Your task to perform on an android device: Go to Yahoo.com Image 0: 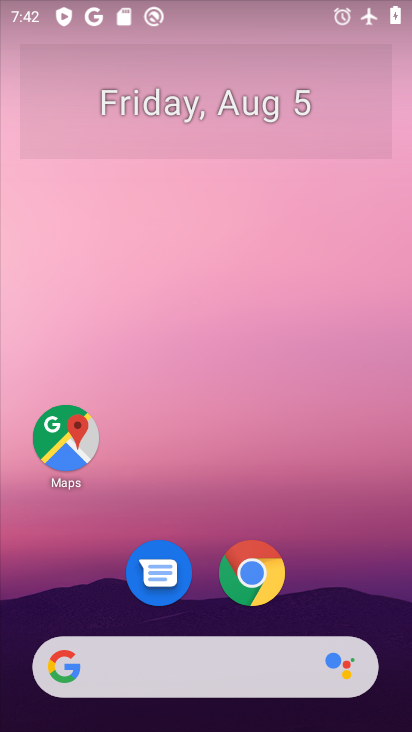
Step 0: click (217, 667)
Your task to perform on an android device: Go to Yahoo.com Image 1: 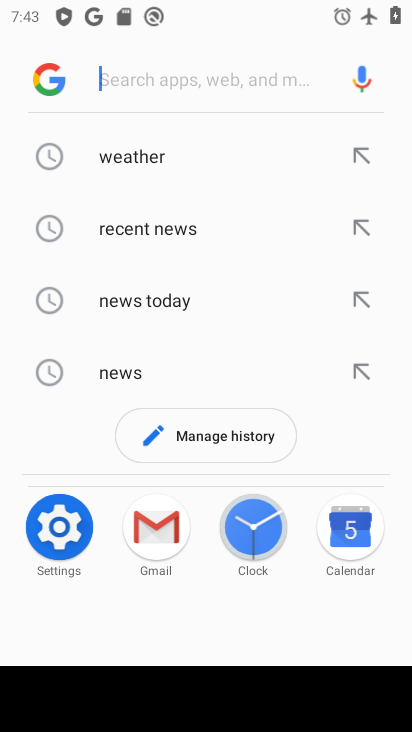
Step 1: type "yahoo.com"
Your task to perform on an android device: Go to Yahoo.com Image 2: 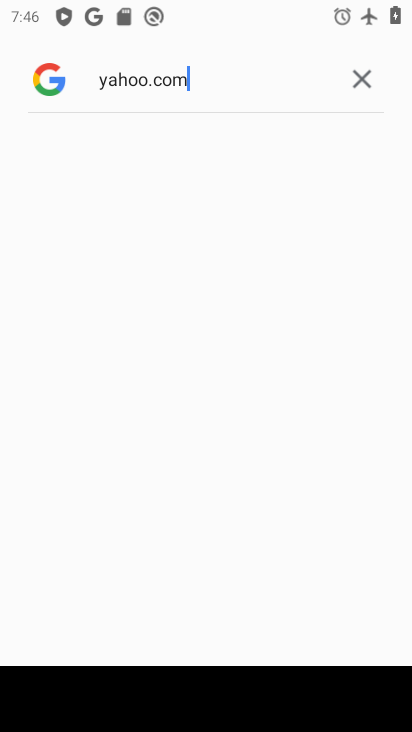
Step 2: task complete